Your task to perform on an android device: manage bookmarks in the chrome app Image 0: 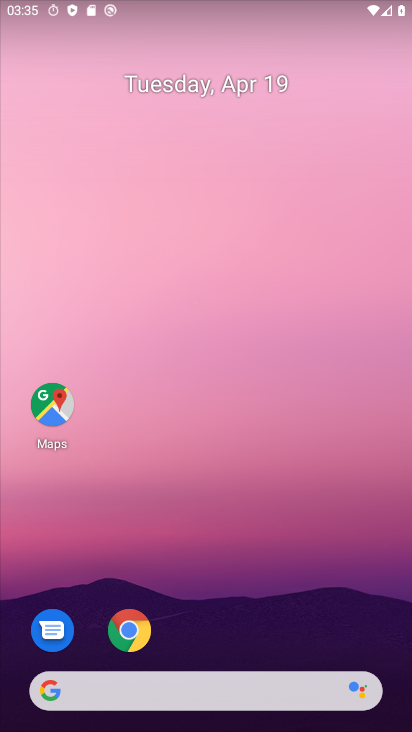
Step 0: click (139, 629)
Your task to perform on an android device: manage bookmarks in the chrome app Image 1: 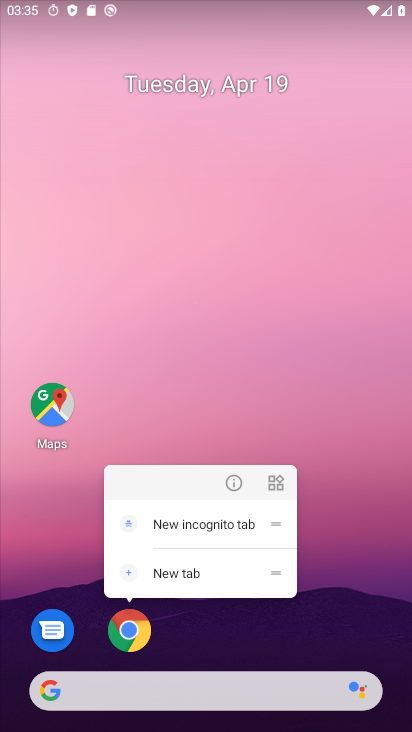
Step 1: click (139, 629)
Your task to perform on an android device: manage bookmarks in the chrome app Image 2: 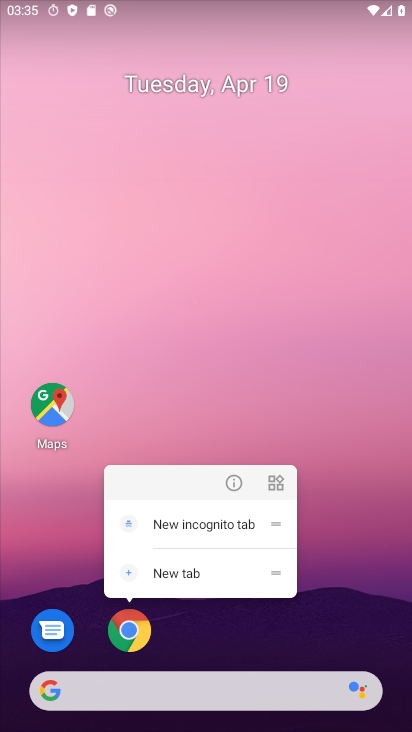
Step 2: click (139, 629)
Your task to perform on an android device: manage bookmarks in the chrome app Image 3: 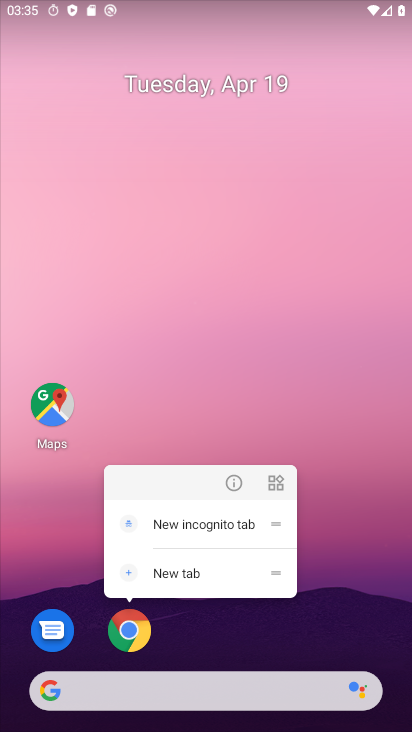
Step 3: click (140, 627)
Your task to perform on an android device: manage bookmarks in the chrome app Image 4: 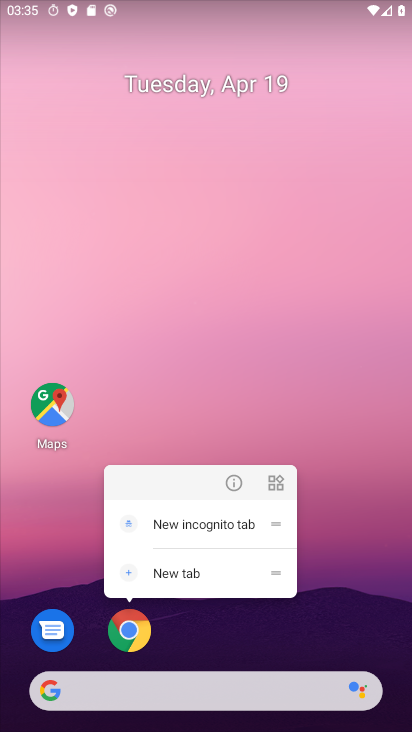
Step 4: click (142, 624)
Your task to perform on an android device: manage bookmarks in the chrome app Image 5: 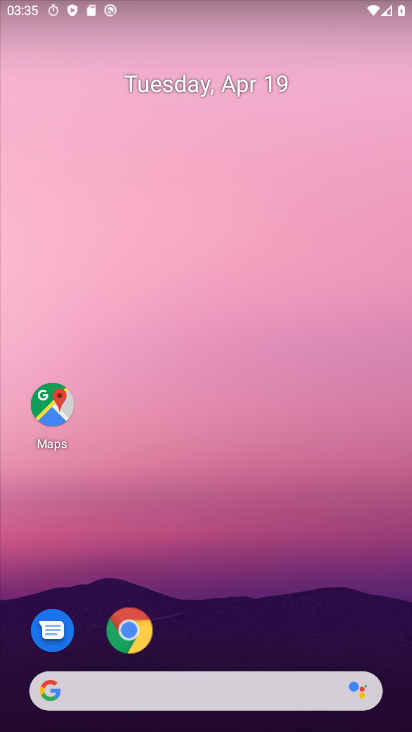
Step 5: click (142, 624)
Your task to perform on an android device: manage bookmarks in the chrome app Image 6: 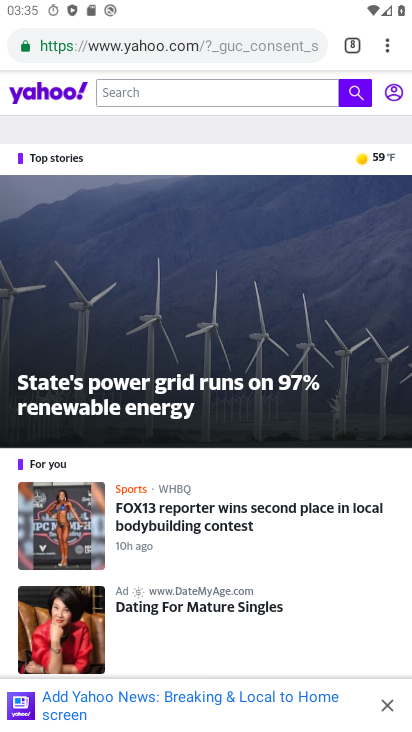
Step 6: click (387, 40)
Your task to perform on an android device: manage bookmarks in the chrome app Image 7: 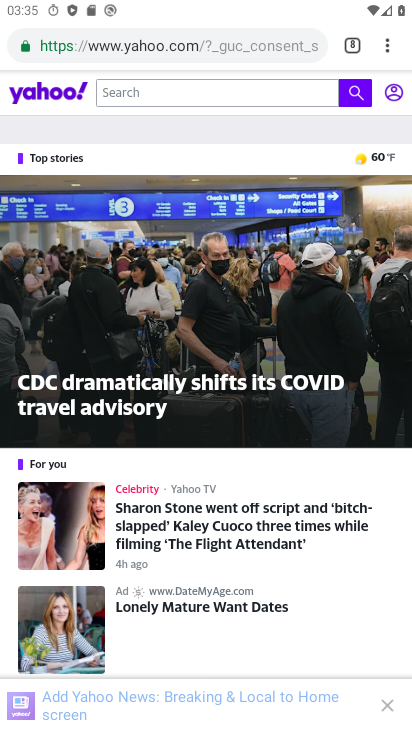
Step 7: click (389, 39)
Your task to perform on an android device: manage bookmarks in the chrome app Image 8: 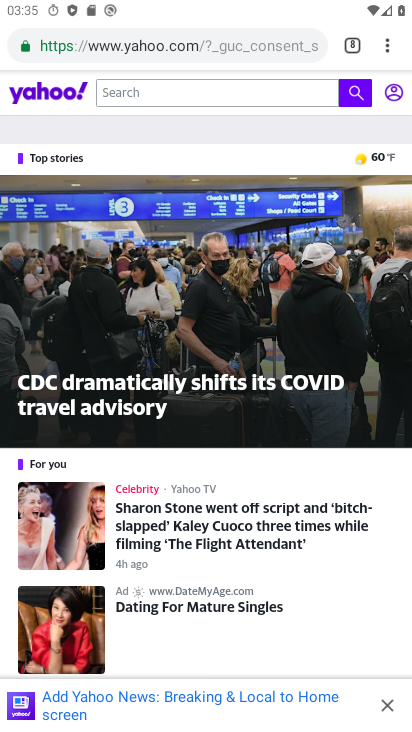
Step 8: click (378, 265)
Your task to perform on an android device: manage bookmarks in the chrome app Image 9: 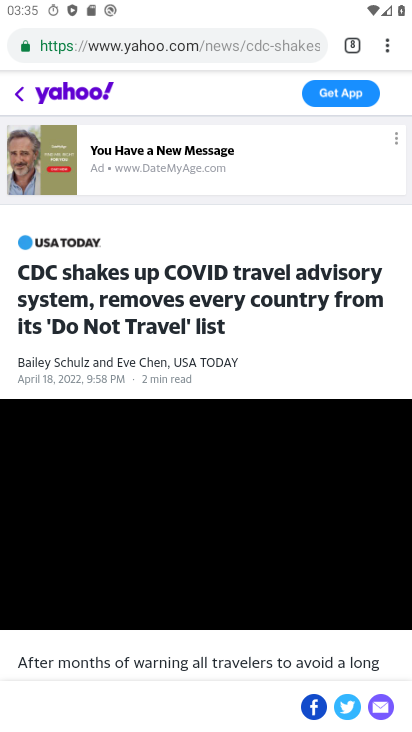
Step 9: click (386, 36)
Your task to perform on an android device: manage bookmarks in the chrome app Image 10: 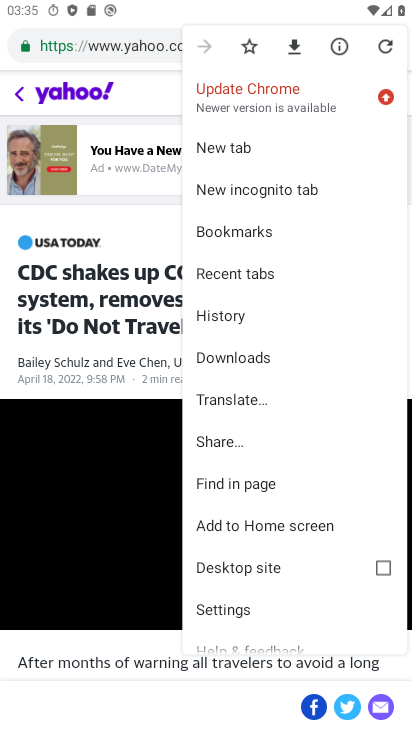
Step 10: click (263, 233)
Your task to perform on an android device: manage bookmarks in the chrome app Image 11: 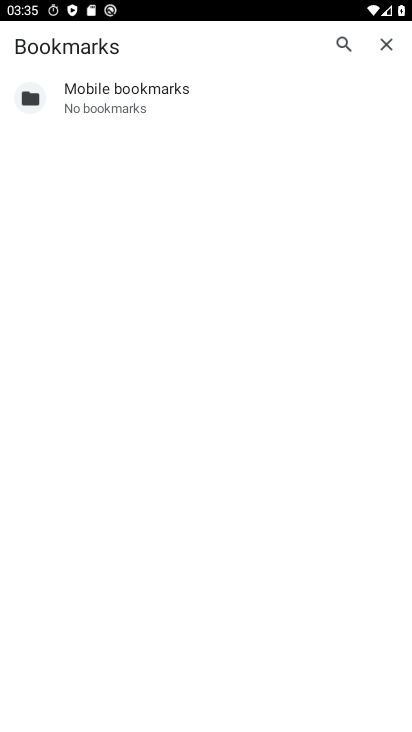
Step 11: click (117, 84)
Your task to perform on an android device: manage bookmarks in the chrome app Image 12: 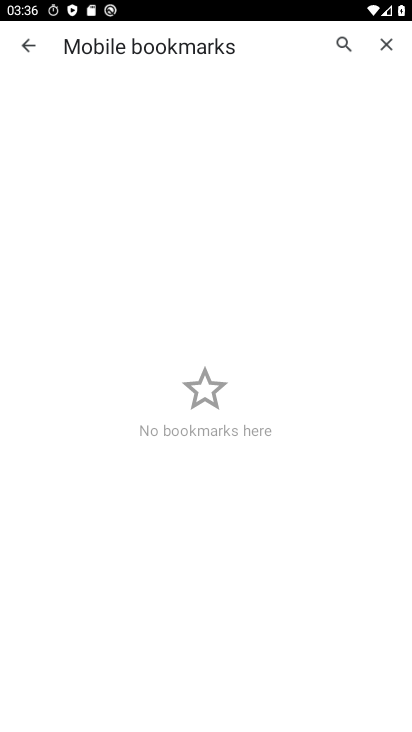
Step 12: task complete